Your task to perform on an android device: show emergency info Image 0: 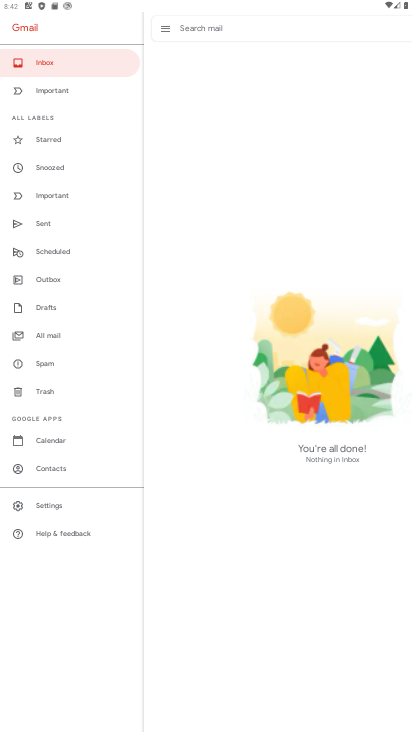
Step 0: drag from (257, 601) to (257, 212)
Your task to perform on an android device: show emergency info Image 1: 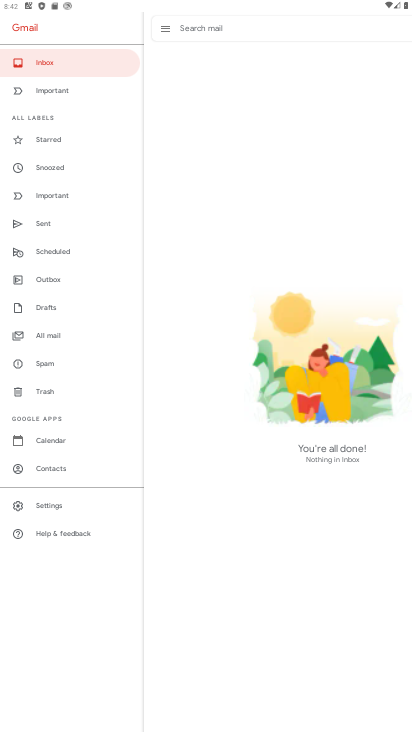
Step 1: press home button
Your task to perform on an android device: show emergency info Image 2: 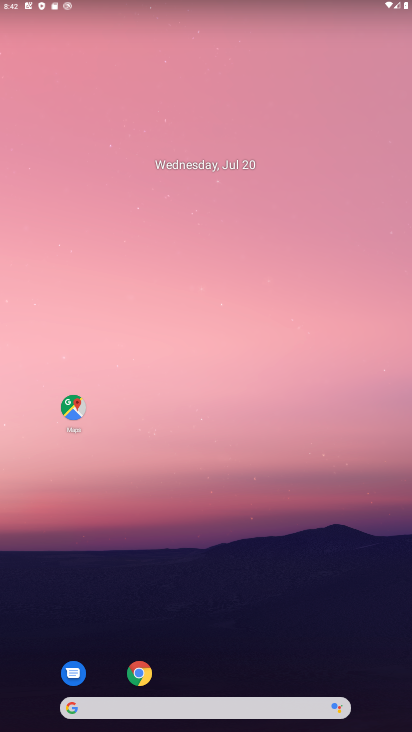
Step 2: drag from (174, 641) to (226, 74)
Your task to perform on an android device: show emergency info Image 3: 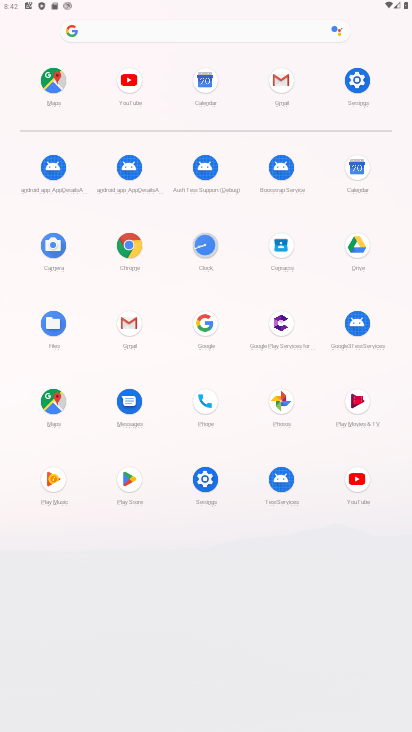
Step 3: click (205, 477)
Your task to perform on an android device: show emergency info Image 4: 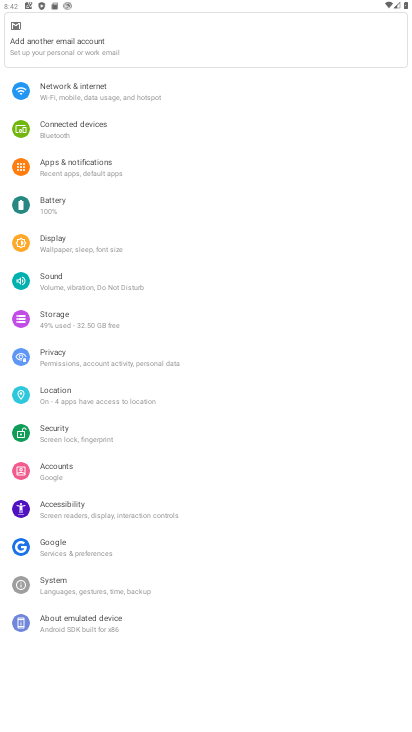
Step 4: click (92, 624)
Your task to perform on an android device: show emergency info Image 5: 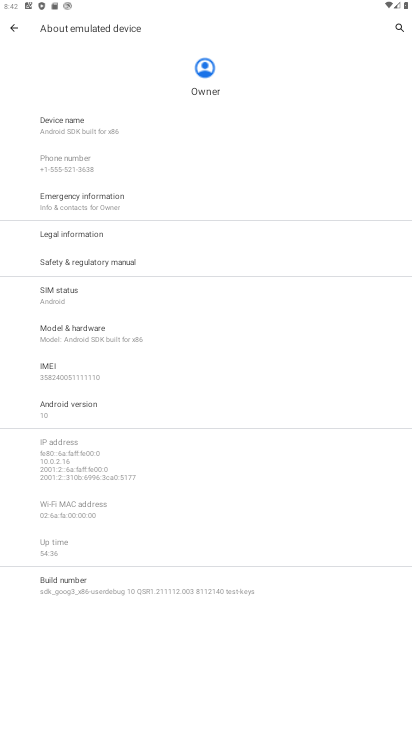
Step 5: click (126, 196)
Your task to perform on an android device: show emergency info Image 6: 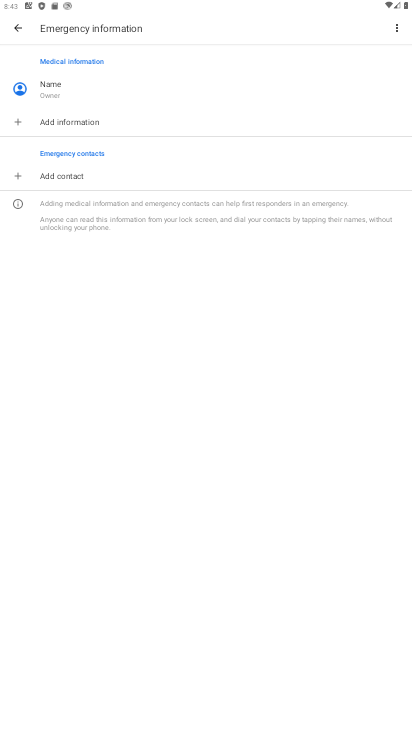
Step 6: task complete